Your task to perform on an android device: turn smart compose on in the gmail app Image 0: 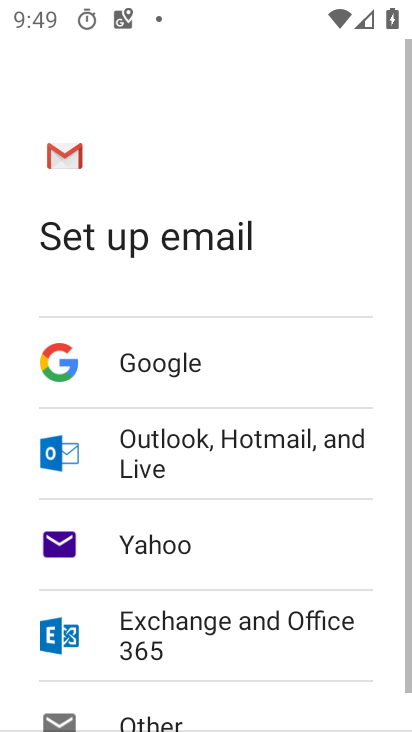
Step 0: press home button
Your task to perform on an android device: turn smart compose on in the gmail app Image 1: 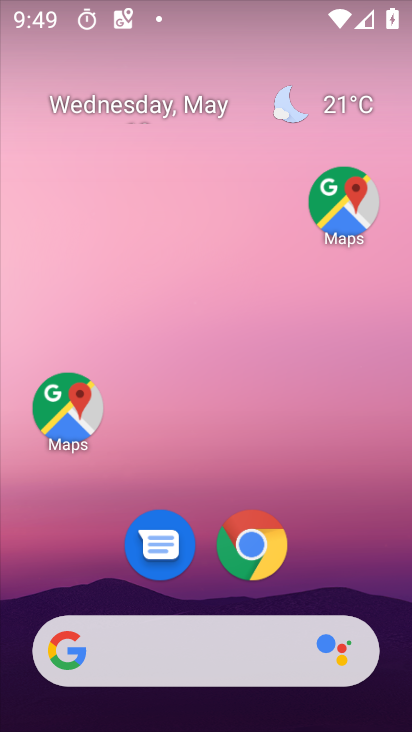
Step 1: drag from (317, 576) to (253, 6)
Your task to perform on an android device: turn smart compose on in the gmail app Image 2: 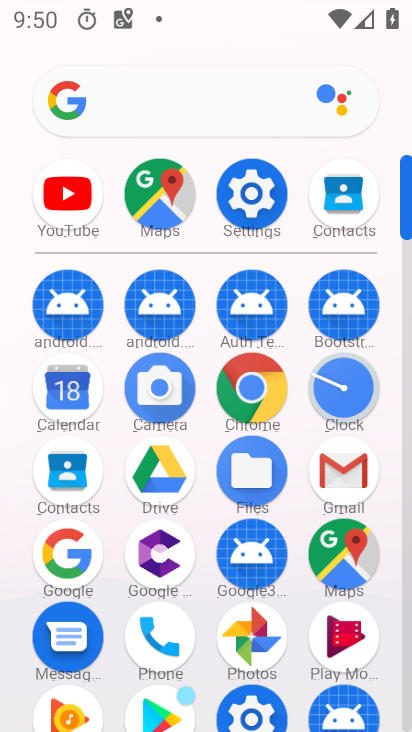
Step 2: click (338, 475)
Your task to perform on an android device: turn smart compose on in the gmail app Image 3: 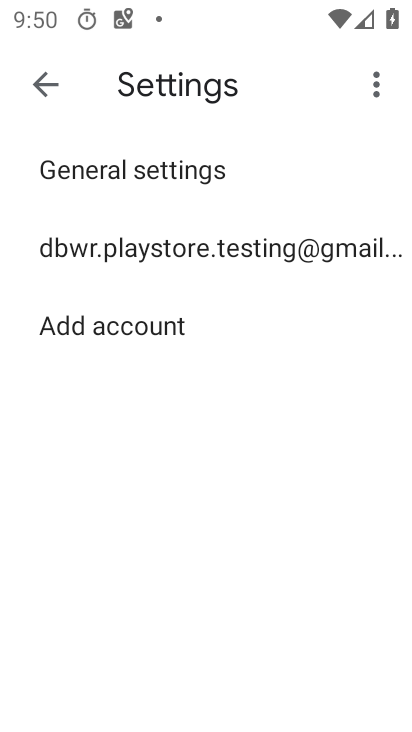
Step 3: click (124, 250)
Your task to perform on an android device: turn smart compose on in the gmail app Image 4: 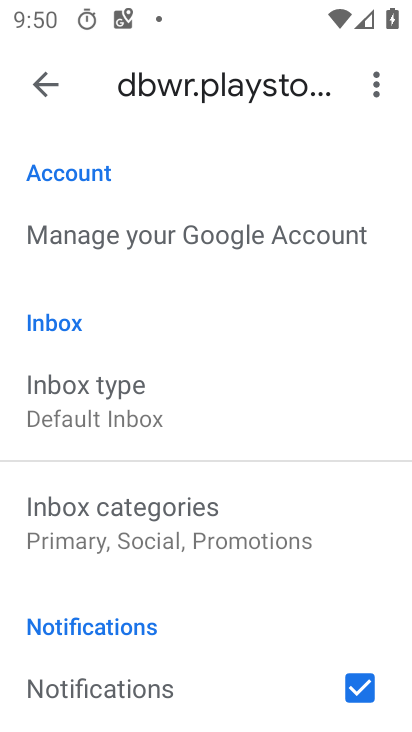
Step 4: task complete